Your task to perform on an android device: What is the news today? Image 0: 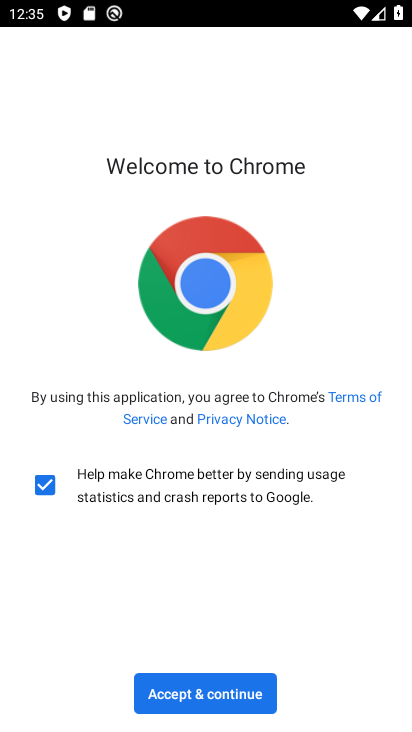
Step 0: press home button
Your task to perform on an android device: What is the news today? Image 1: 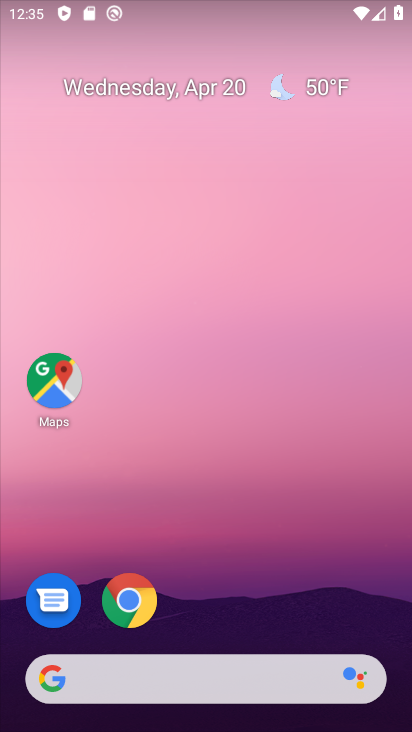
Step 1: drag from (48, 240) to (348, 280)
Your task to perform on an android device: What is the news today? Image 2: 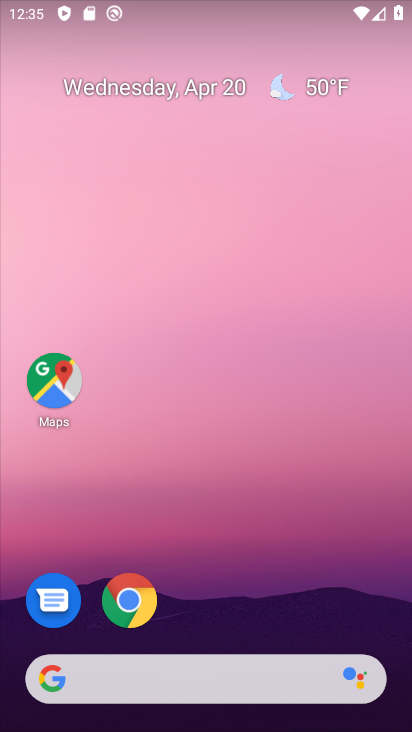
Step 2: drag from (0, 218) to (362, 285)
Your task to perform on an android device: What is the news today? Image 3: 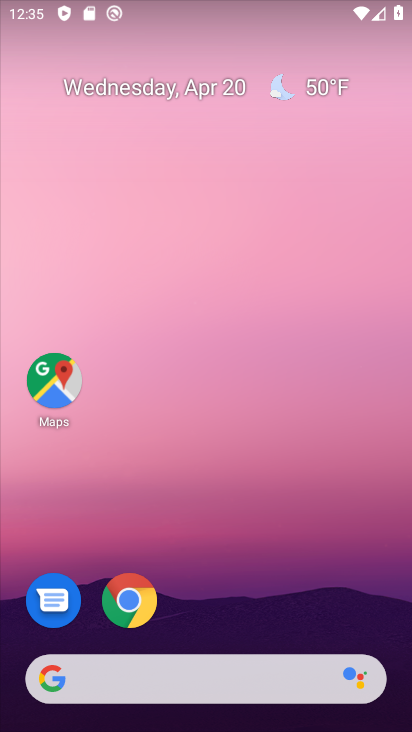
Step 3: drag from (2, 272) to (396, 258)
Your task to perform on an android device: What is the news today? Image 4: 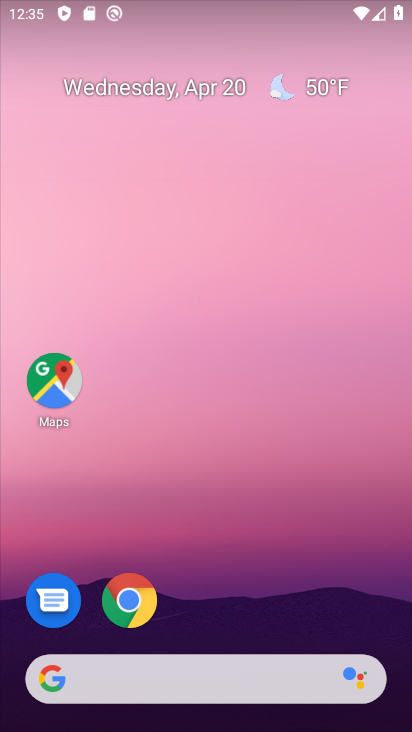
Step 4: drag from (2, 208) to (399, 436)
Your task to perform on an android device: What is the news today? Image 5: 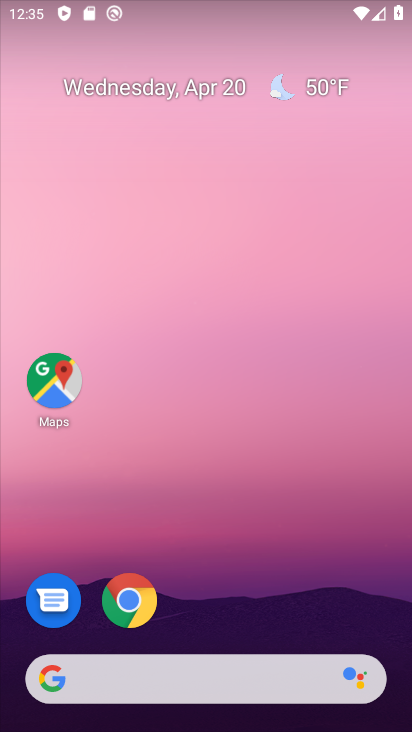
Step 5: drag from (196, 665) to (347, 135)
Your task to perform on an android device: What is the news today? Image 6: 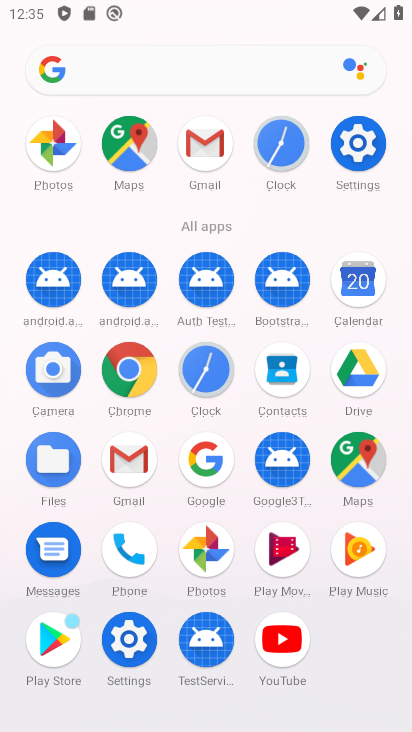
Step 6: click (210, 471)
Your task to perform on an android device: What is the news today? Image 7: 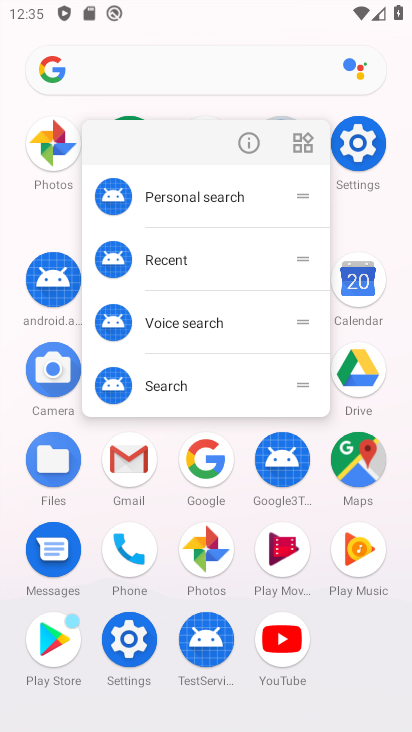
Step 7: click (201, 467)
Your task to perform on an android device: What is the news today? Image 8: 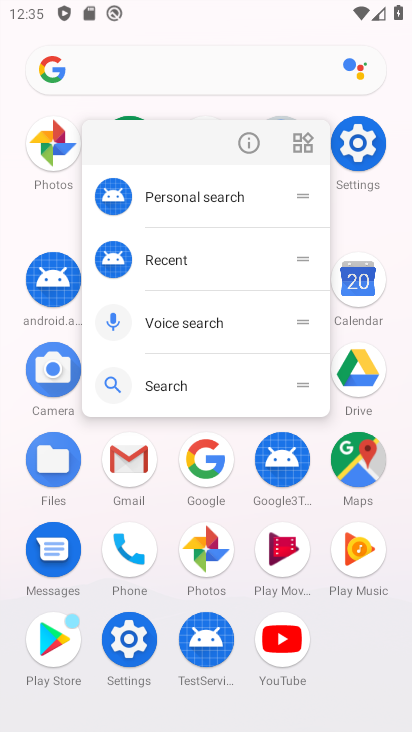
Step 8: click (201, 467)
Your task to perform on an android device: What is the news today? Image 9: 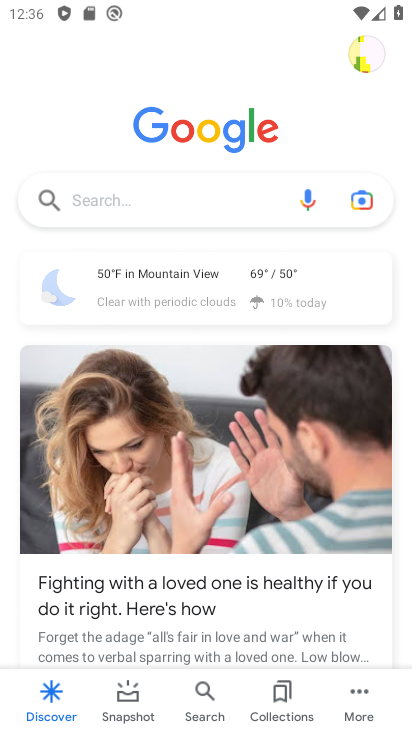
Step 9: drag from (187, 485) to (287, 98)
Your task to perform on an android device: What is the news today? Image 10: 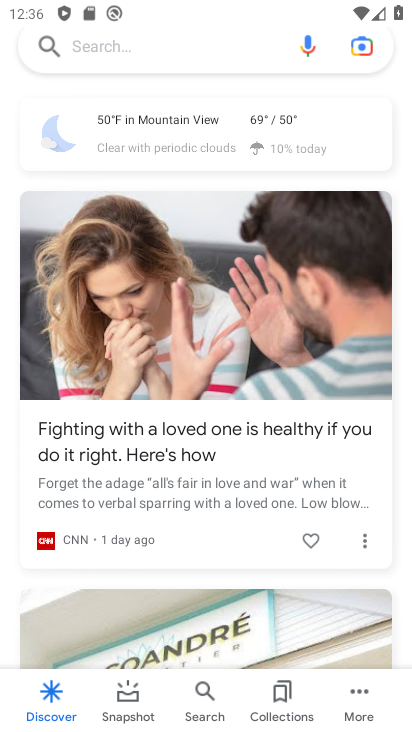
Step 10: drag from (266, 251) to (214, 558)
Your task to perform on an android device: What is the news today? Image 11: 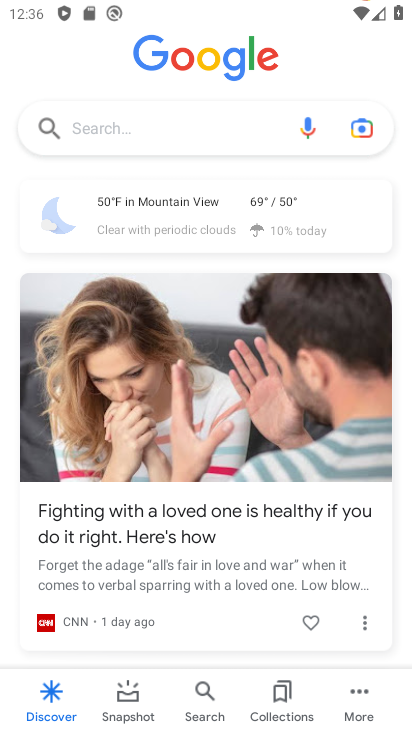
Step 11: click (162, 131)
Your task to perform on an android device: What is the news today? Image 12: 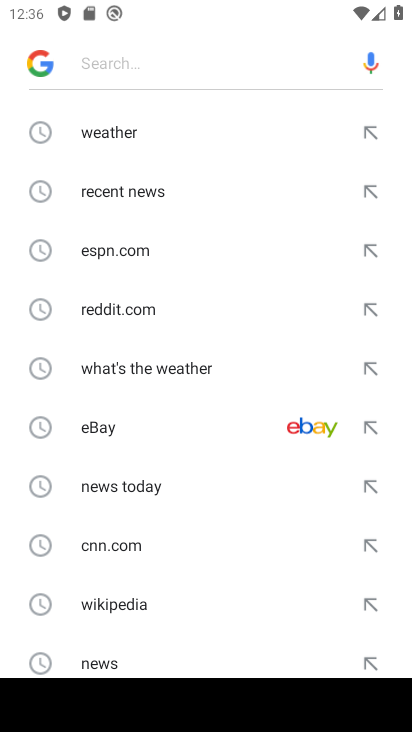
Step 12: click (115, 484)
Your task to perform on an android device: What is the news today? Image 13: 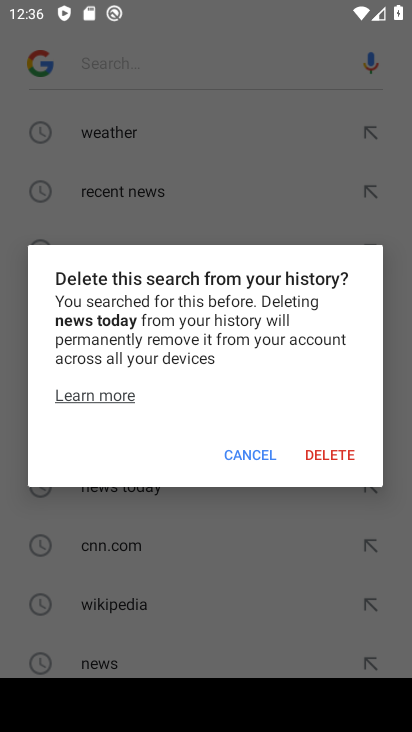
Step 13: click (257, 455)
Your task to perform on an android device: What is the news today? Image 14: 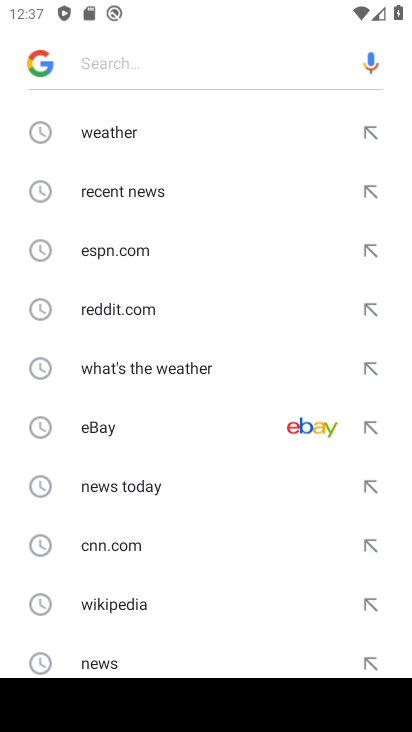
Step 14: click (155, 483)
Your task to perform on an android device: What is the news today? Image 15: 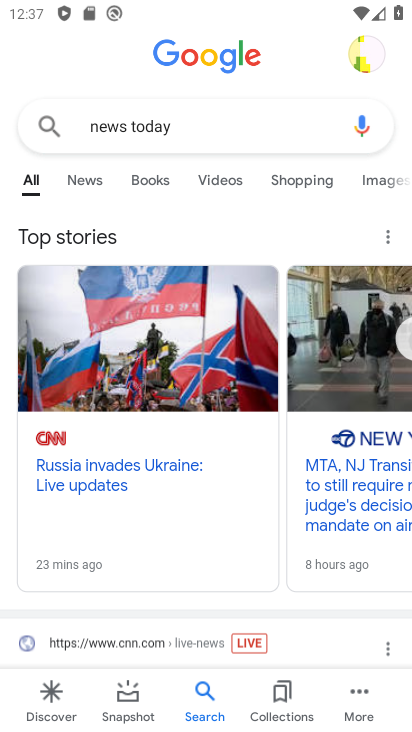
Step 15: task complete